Your task to perform on an android device: open a new tab in the chrome app Image 0: 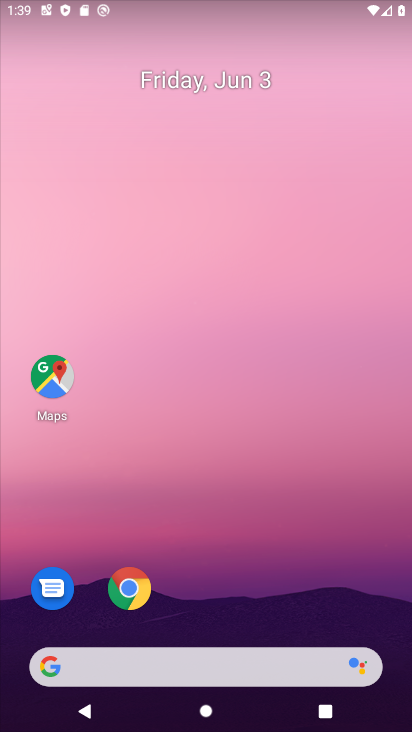
Step 0: press home button
Your task to perform on an android device: open a new tab in the chrome app Image 1: 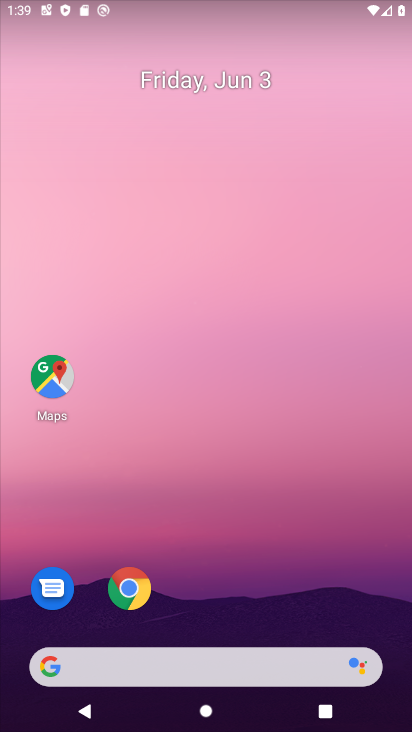
Step 1: click (116, 588)
Your task to perform on an android device: open a new tab in the chrome app Image 2: 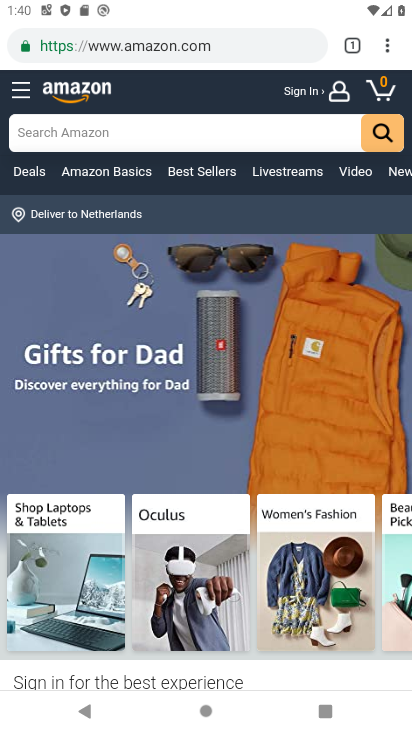
Step 2: click (347, 47)
Your task to perform on an android device: open a new tab in the chrome app Image 3: 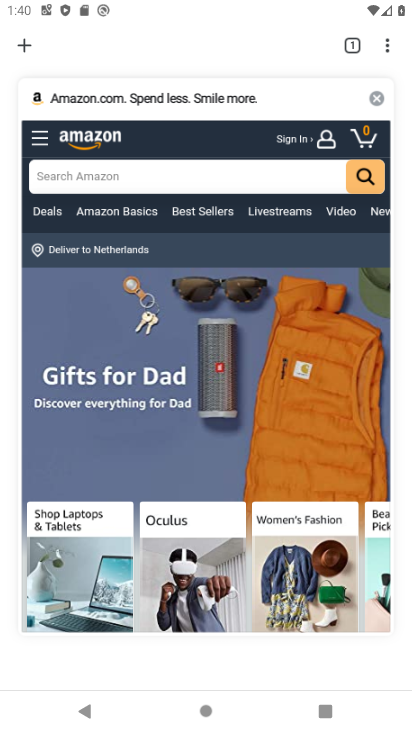
Step 3: click (27, 42)
Your task to perform on an android device: open a new tab in the chrome app Image 4: 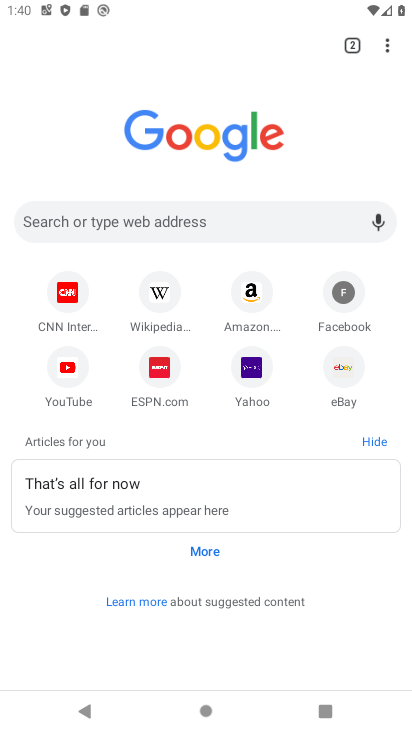
Step 4: task complete